Your task to perform on an android device: Open Google Chrome and click the shortcut for Amazon.com Image 0: 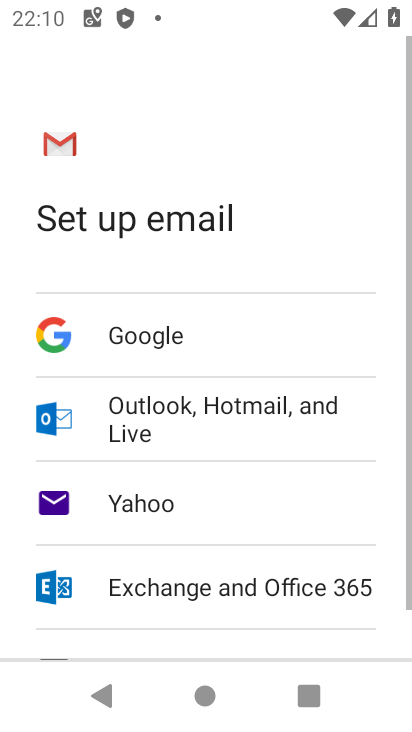
Step 0: press home button
Your task to perform on an android device: Open Google Chrome and click the shortcut for Amazon.com Image 1: 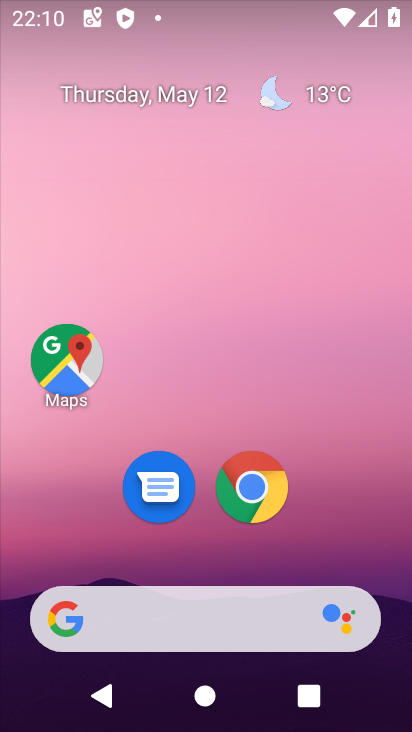
Step 1: click (243, 482)
Your task to perform on an android device: Open Google Chrome and click the shortcut for Amazon.com Image 2: 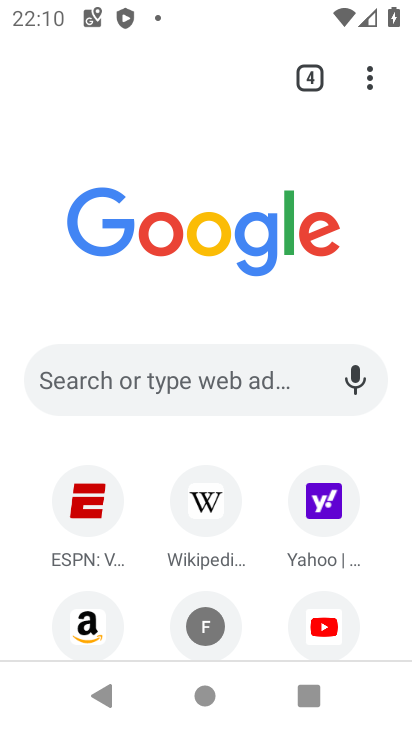
Step 2: click (93, 612)
Your task to perform on an android device: Open Google Chrome and click the shortcut for Amazon.com Image 3: 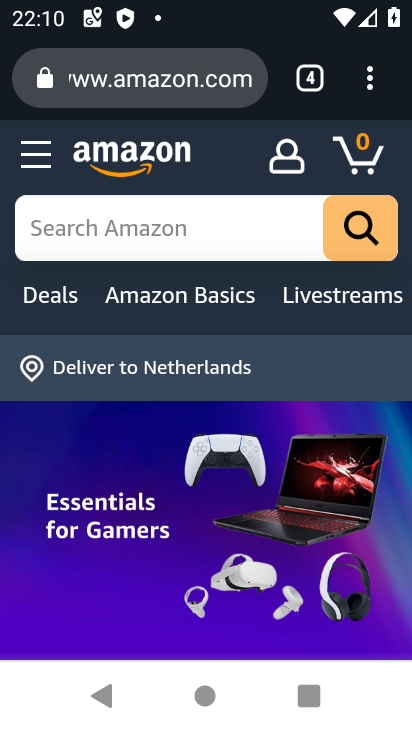
Step 3: task complete